Your task to perform on an android device: turn on notifications settings in the gmail app Image 0: 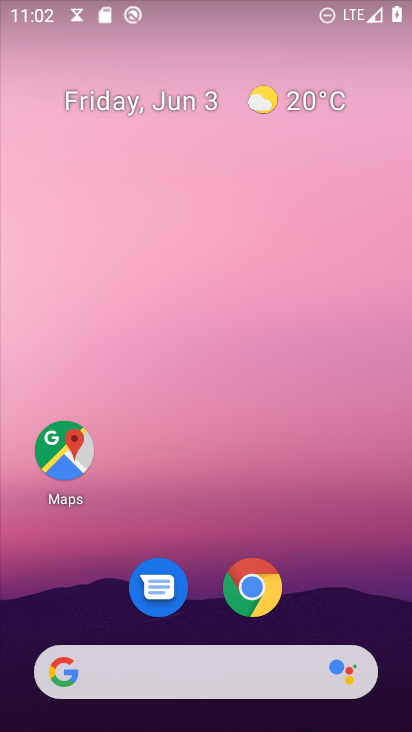
Step 0: drag from (348, 489) to (193, 0)
Your task to perform on an android device: turn on notifications settings in the gmail app Image 1: 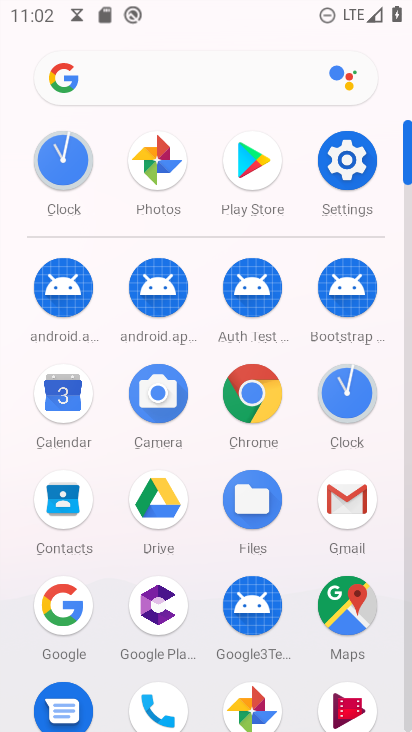
Step 1: click (361, 489)
Your task to perform on an android device: turn on notifications settings in the gmail app Image 2: 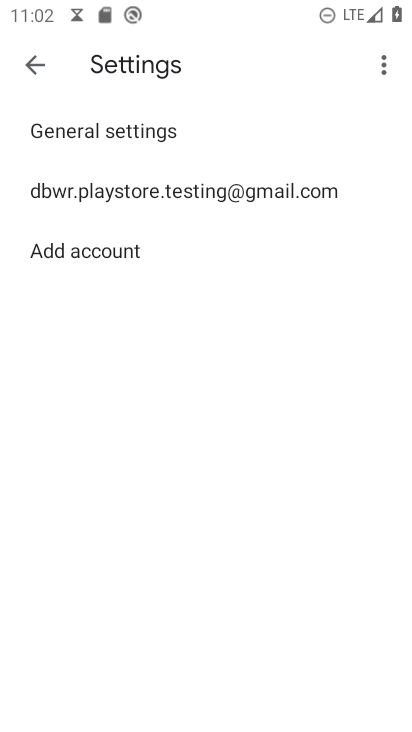
Step 2: click (109, 195)
Your task to perform on an android device: turn on notifications settings in the gmail app Image 3: 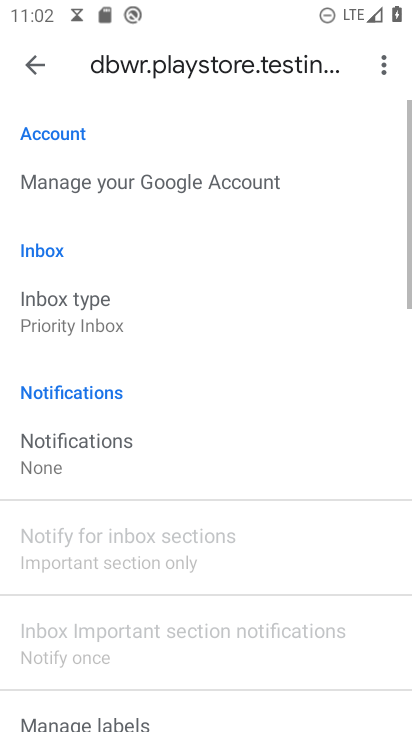
Step 3: click (202, 456)
Your task to perform on an android device: turn on notifications settings in the gmail app Image 4: 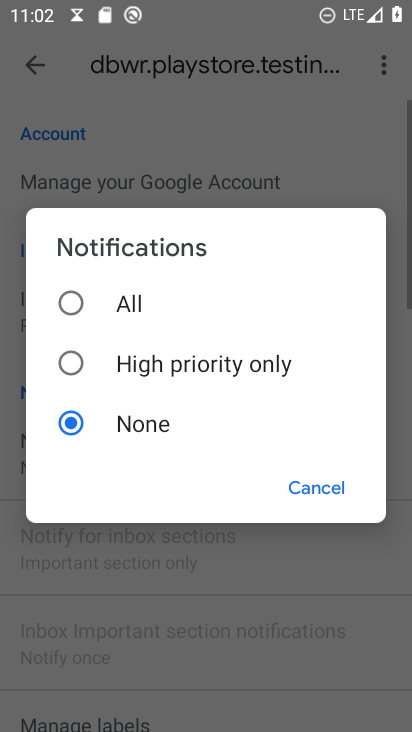
Step 4: click (137, 307)
Your task to perform on an android device: turn on notifications settings in the gmail app Image 5: 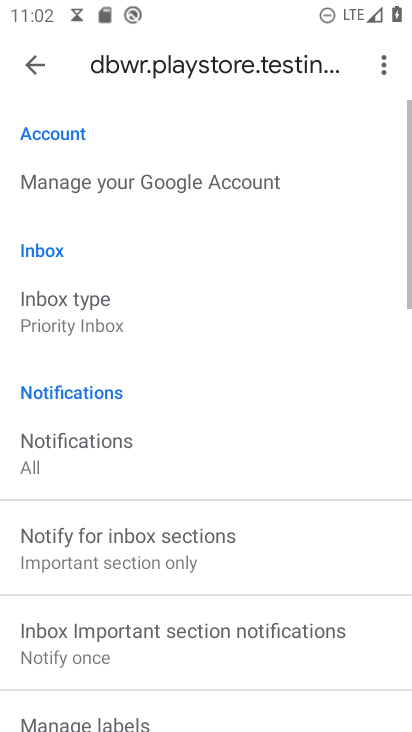
Step 5: task complete